Your task to perform on an android device: Open the phone app and click the voicemail tab. Image 0: 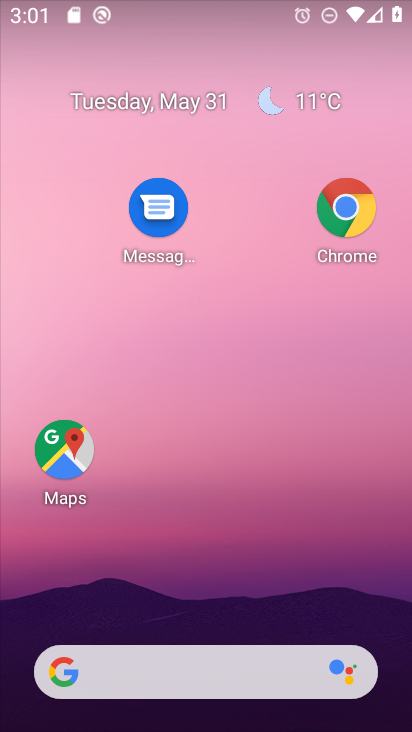
Step 0: drag from (179, 595) to (156, 6)
Your task to perform on an android device: Open the phone app and click the voicemail tab. Image 1: 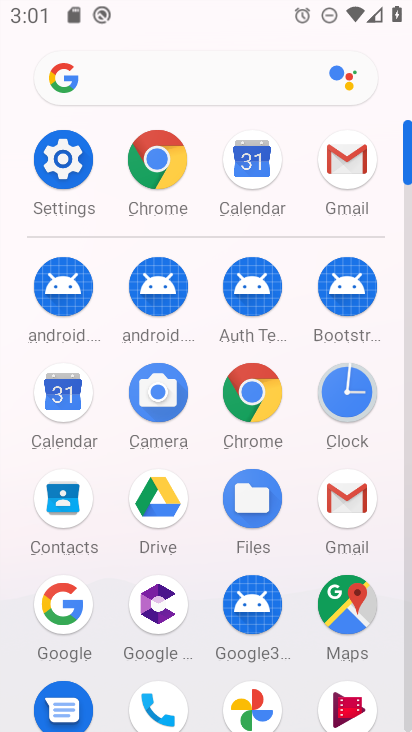
Step 1: drag from (205, 656) to (212, 170)
Your task to perform on an android device: Open the phone app and click the voicemail tab. Image 2: 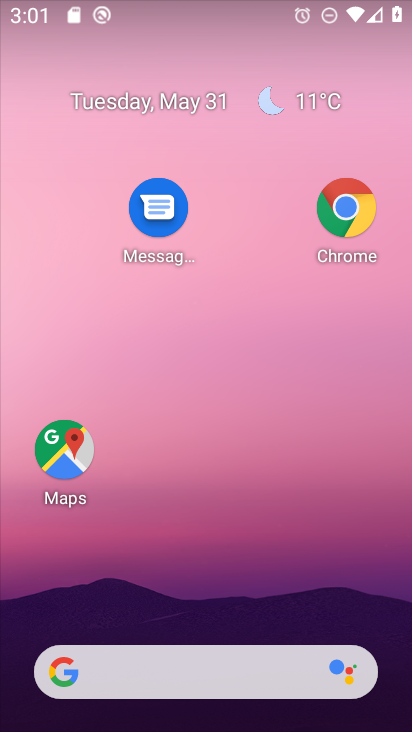
Step 2: drag from (219, 623) to (250, 10)
Your task to perform on an android device: Open the phone app and click the voicemail tab. Image 3: 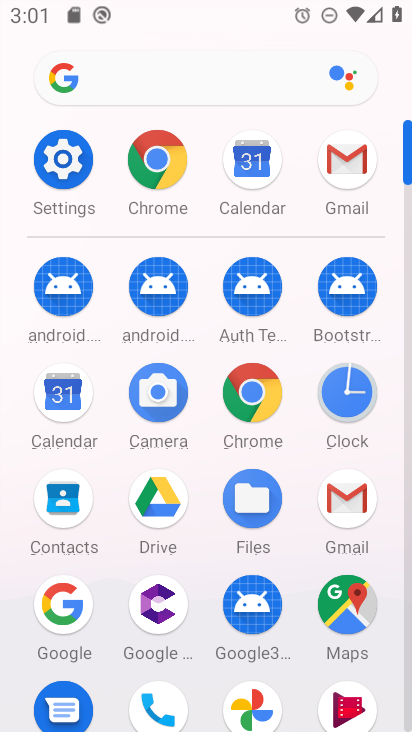
Step 3: drag from (218, 585) to (194, 138)
Your task to perform on an android device: Open the phone app and click the voicemail tab. Image 4: 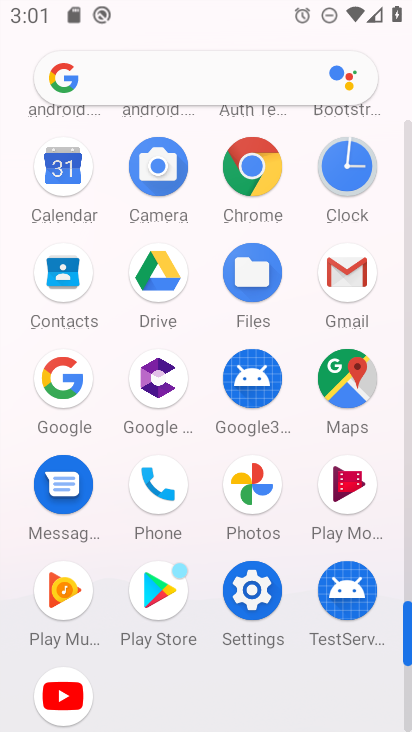
Step 4: click (154, 480)
Your task to perform on an android device: Open the phone app and click the voicemail tab. Image 5: 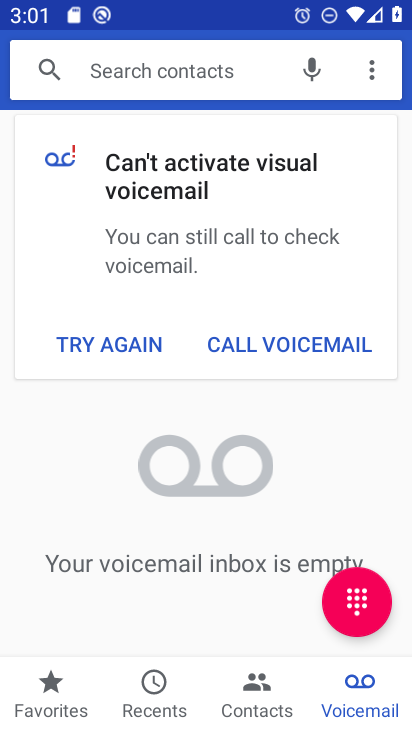
Step 5: click (352, 671)
Your task to perform on an android device: Open the phone app and click the voicemail tab. Image 6: 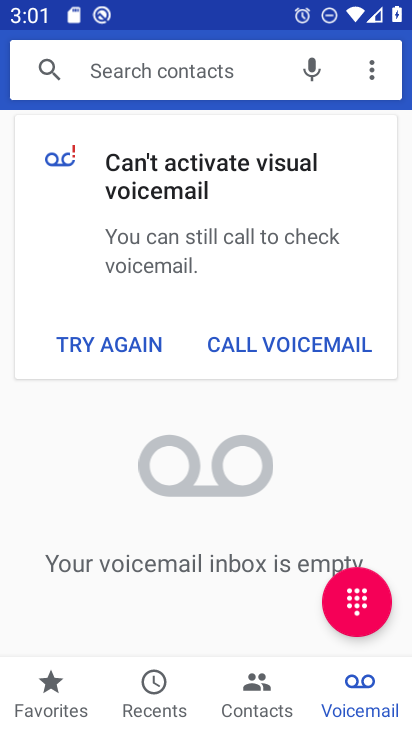
Step 6: task complete